Your task to perform on an android device: Go to wifi settings Image 0: 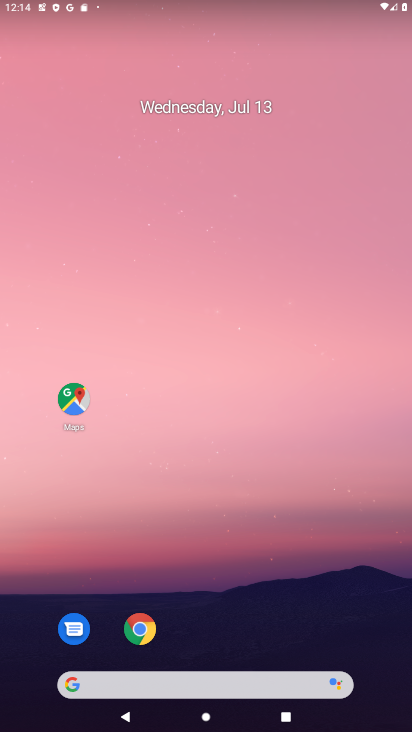
Step 0: drag from (199, 619) to (221, 101)
Your task to perform on an android device: Go to wifi settings Image 1: 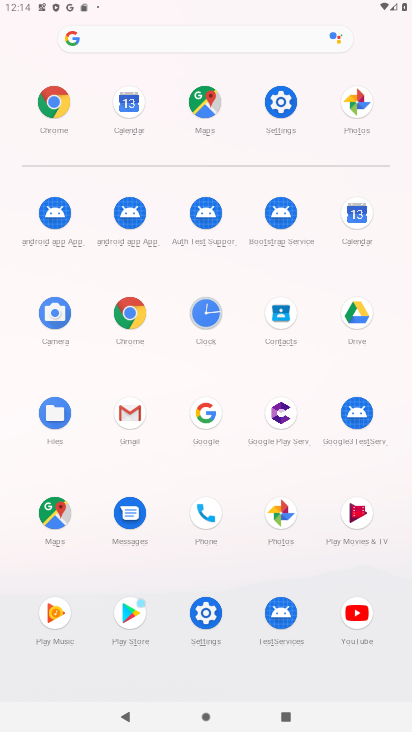
Step 1: click (274, 97)
Your task to perform on an android device: Go to wifi settings Image 2: 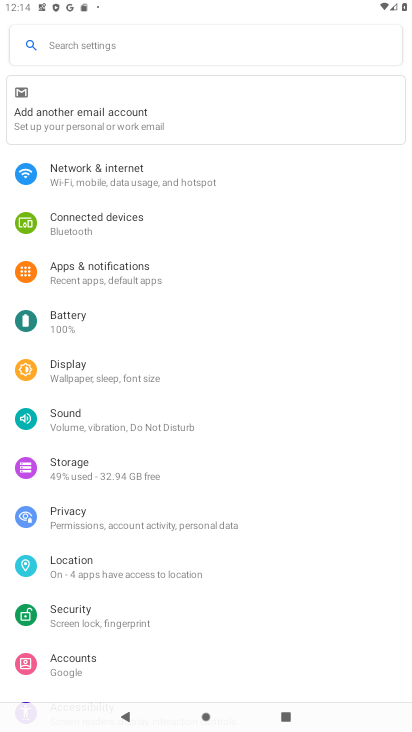
Step 2: click (143, 169)
Your task to perform on an android device: Go to wifi settings Image 3: 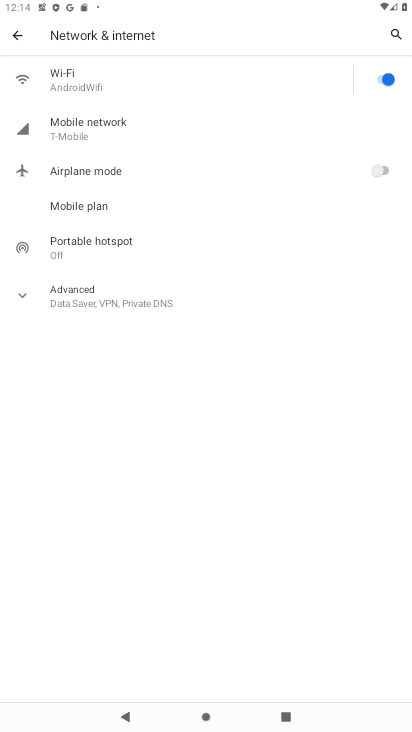
Step 3: click (163, 74)
Your task to perform on an android device: Go to wifi settings Image 4: 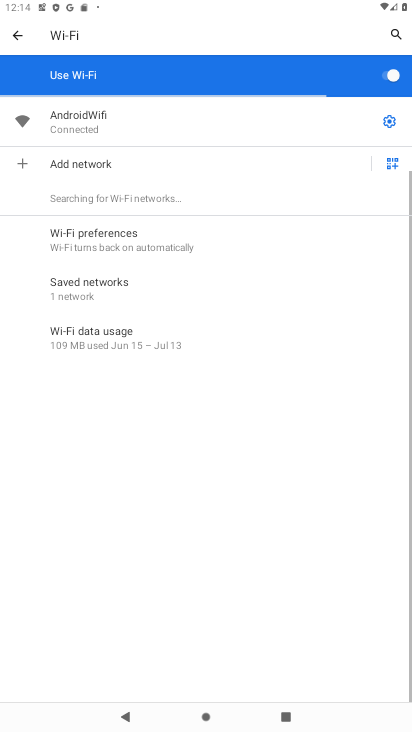
Step 4: task complete